Your task to perform on an android device: Set the phone to "Do not disturb". Image 0: 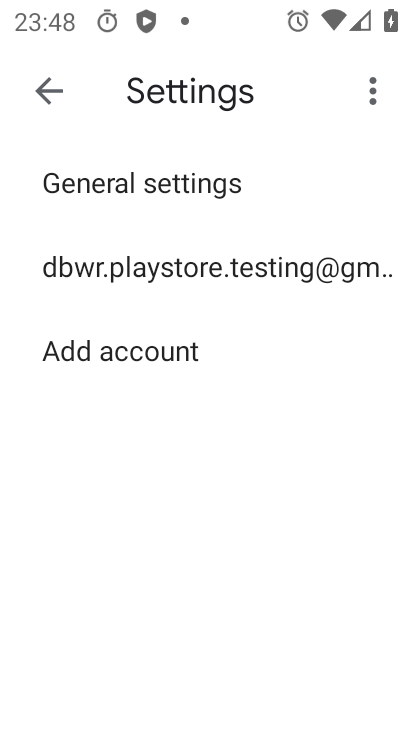
Step 0: click (38, 90)
Your task to perform on an android device: Set the phone to "Do not disturb". Image 1: 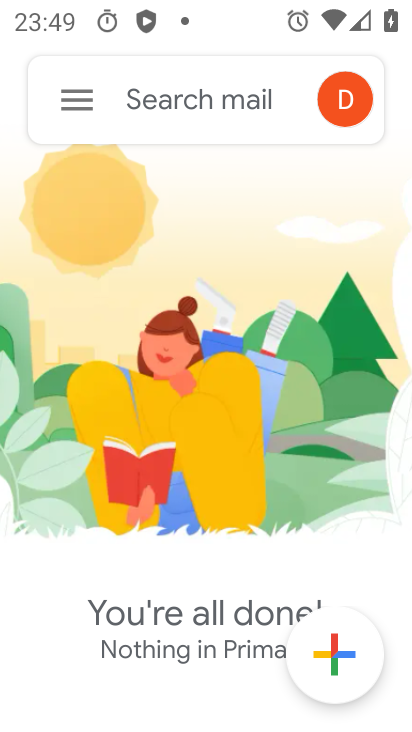
Step 1: press home button
Your task to perform on an android device: Set the phone to "Do not disturb". Image 2: 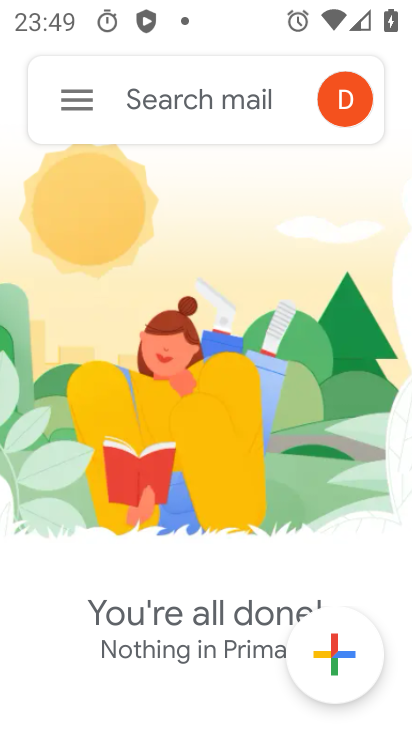
Step 2: press home button
Your task to perform on an android device: Set the phone to "Do not disturb". Image 3: 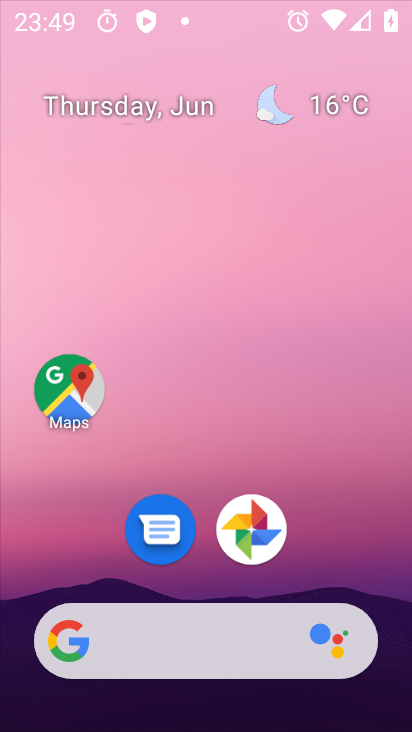
Step 3: press home button
Your task to perform on an android device: Set the phone to "Do not disturb". Image 4: 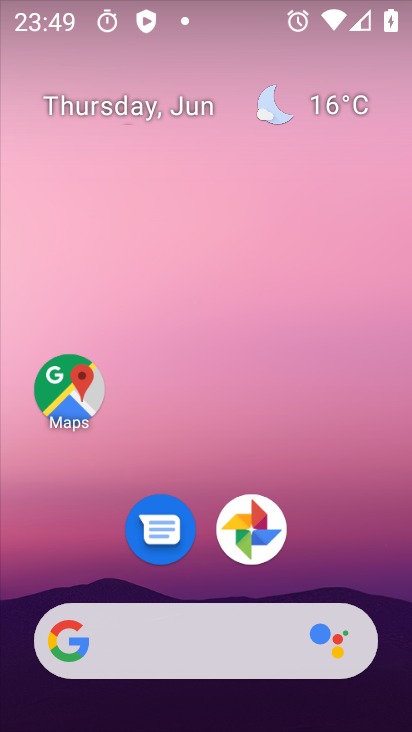
Step 4: drag from (190, 689) to (131, 284)
Your task to perform on an android device: Set the phone to "Do not disturb". Image 5: 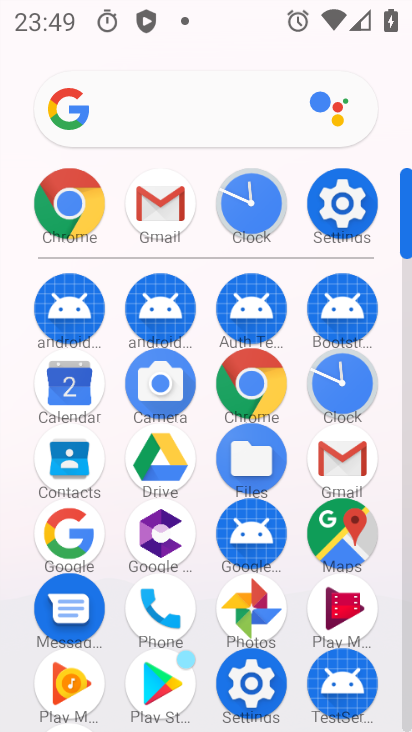
Step 5: click (318, 199)
Your task to perform on an android device: Set the phone to "Do not disturb". Image 6: 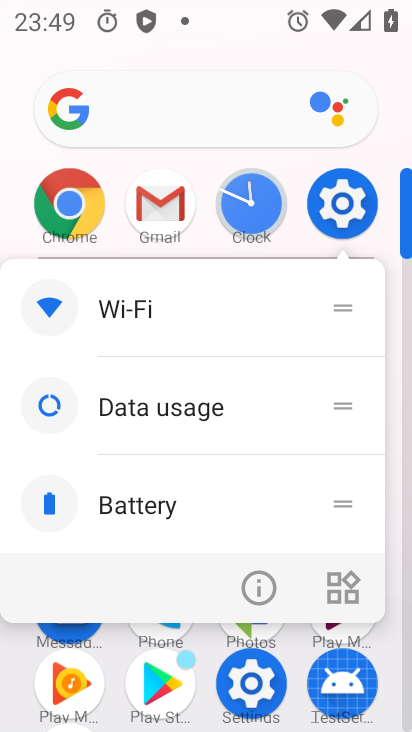
Step 6: click (341, 209)
Your task to perform on an android device: Set the phone to "Do not disturb". Image 7: 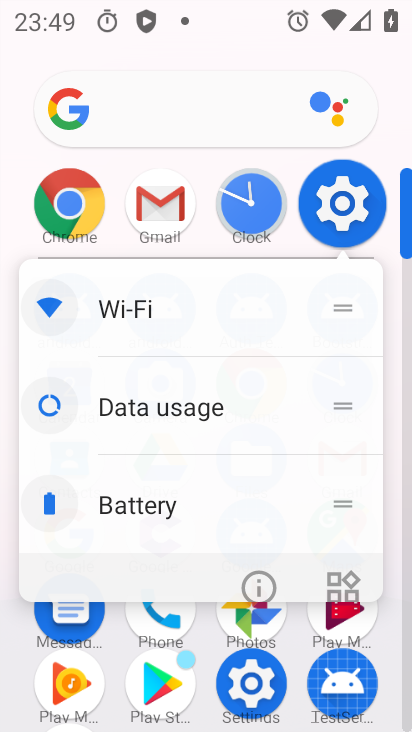
Step 7: click (341, 210)
Your task to perform on an android device: Set the phone to "Do not disturb". Image 8: 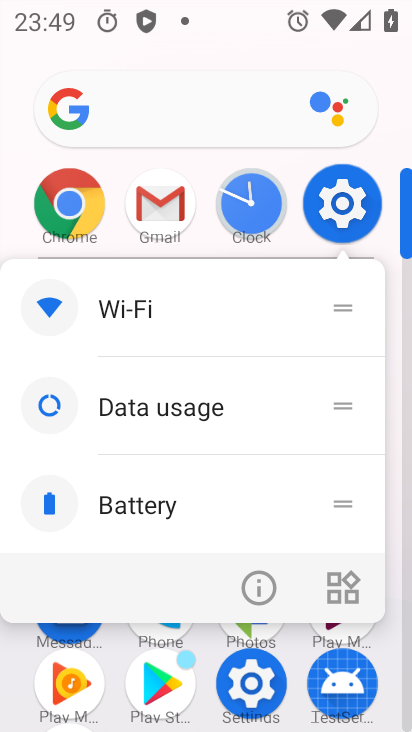
Step 8: click (341, 210)
Your task to perform on an android device: Set the phone to "Do not disturb". Image 9: 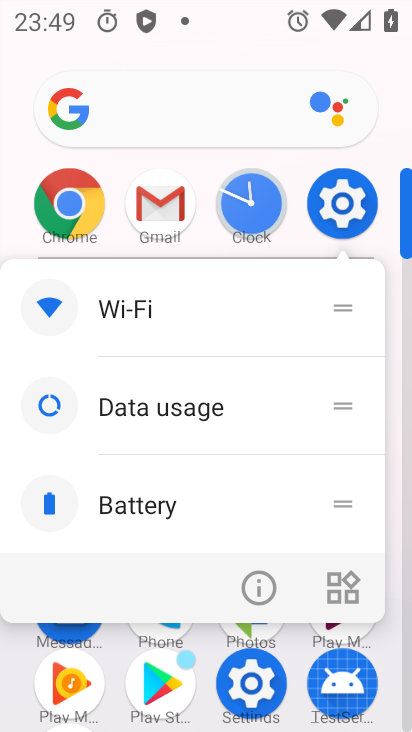
Step 9: click (335, 215)
Your task to perform on an android device: Set the phone to "Do not disturb". Image 10: 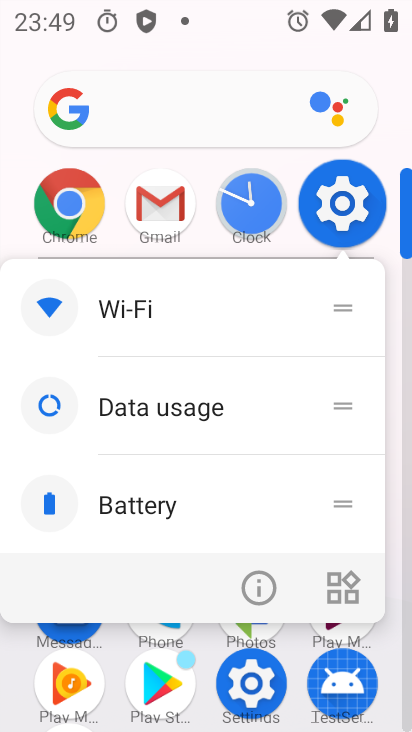
Step 10: click (336, 215)
Your task to perform on an android device: Set the phone to "Do not disturb". Image 11: 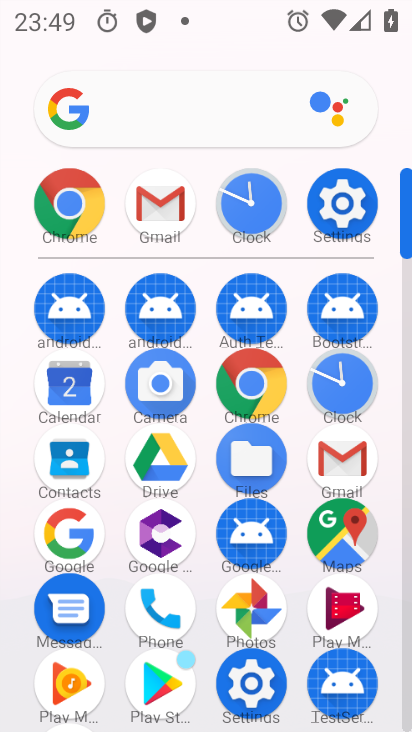
Step 11: click (345, 210)
Your task to perform on an android device: Set the phone to "Do not disturb". Image 12: 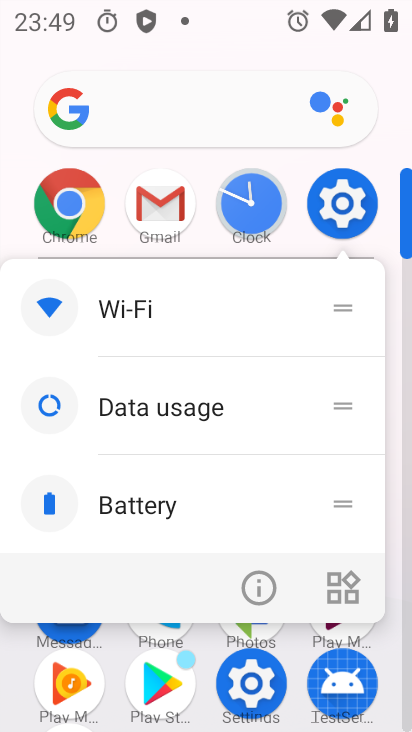
Step 12: click (331, 208)
Your task to perform on an android device: Set the phone to "Do not disturb". Image 13: 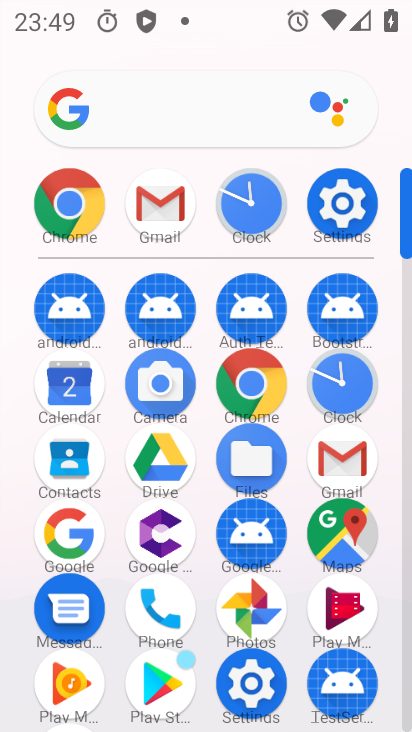
Step 13: click (346, 192)
Your task to perform on an android device: Set the phone to "Do not disturb". Image 14: 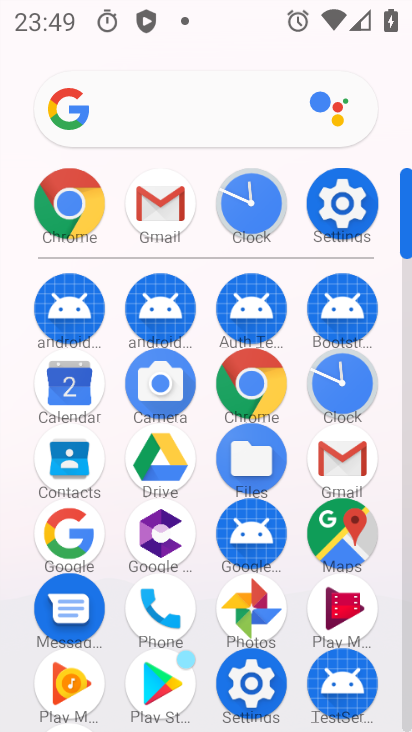
Step 14: click (346, 192)
Your task to perform on an android device: Set the phone to "Do not disturb". Image 15: 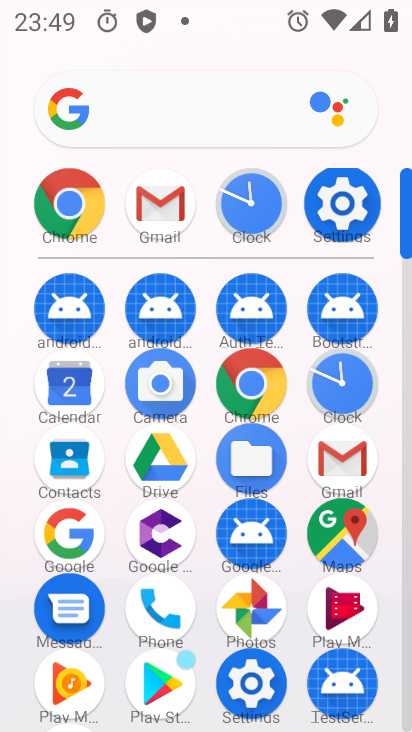
Step 15: click (343, 195)
Your task to perform on an android device: Set the phone to "Do not disturb". Image 16: 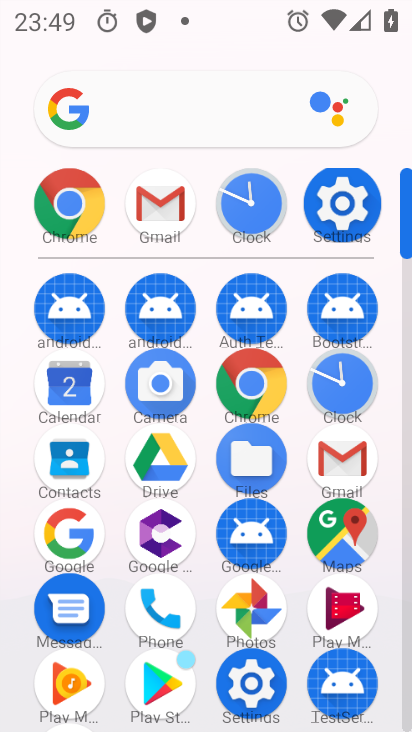
Step 16: click (343, 195)
Your task to perform on an android device: Set the phone to "Do not disturb". Image 17: 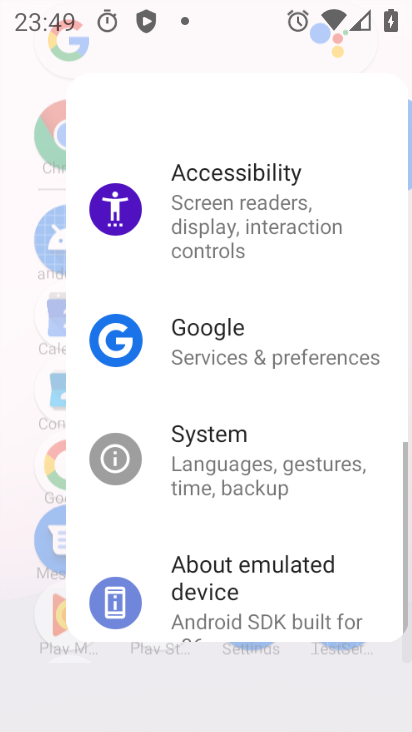
Step 17: click (343, 195)
Your task to perform on an android device: Set the phone to "Do not disturb". Image 18: 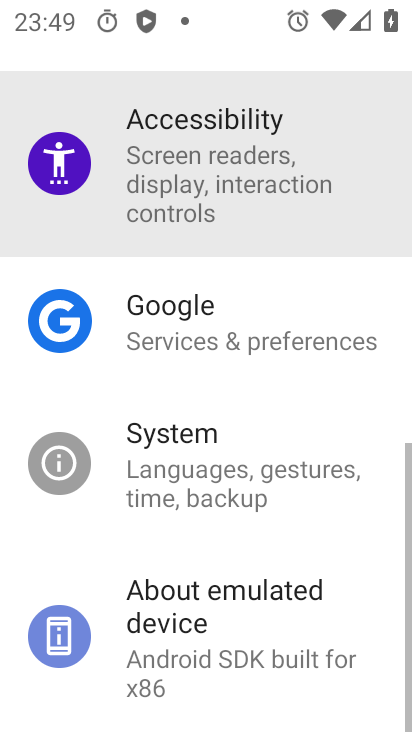
Step 18: click (346, 174)
Your task to perform on an android device: Set the phone to "Do not disturb". Image 19: 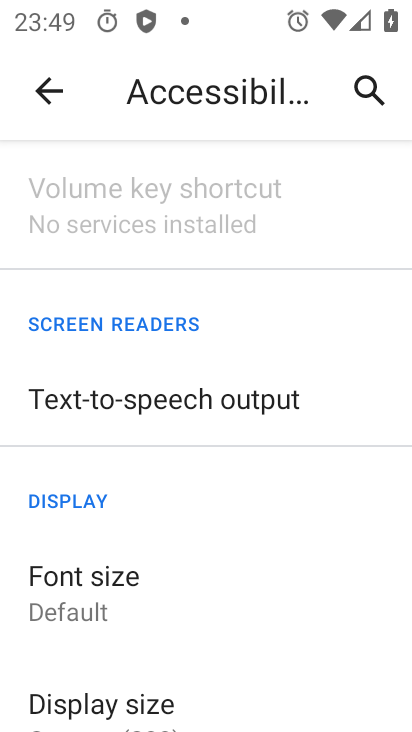
Step 19: click (28, 97)
Your task to perform on an android device: Set the phone to "Do not disturb". Image 20: 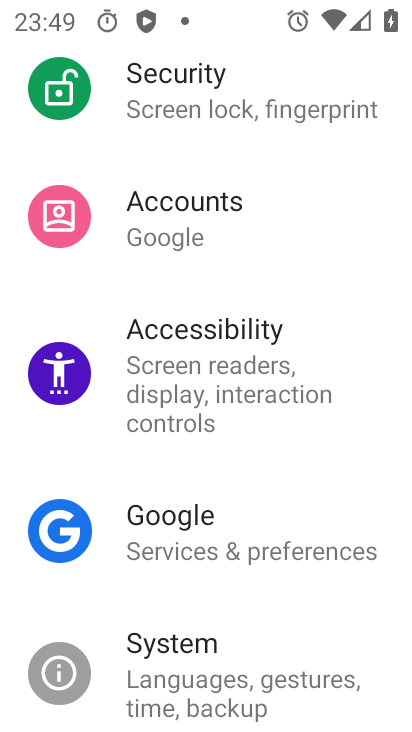
Step 20: drag from (182, 260) to (270, 632)
Your task to perform on an android device: Set the phone to "Do not disturb". Image 21: 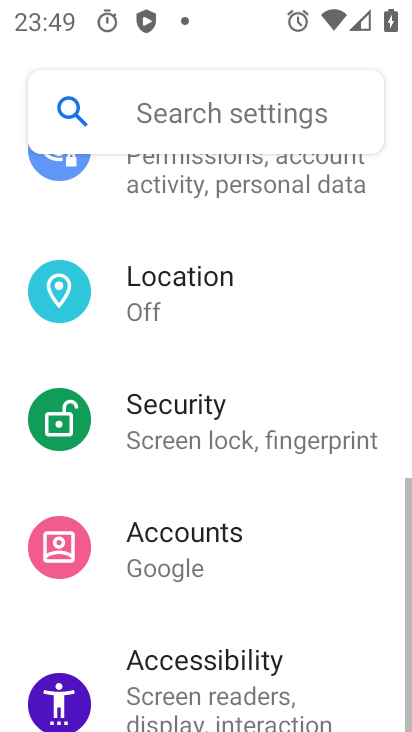
Step 21: drag from (202, 207) to (294, 585)
Your task to perform on an android device: Set the phone to "Do not disturb". Image 22: 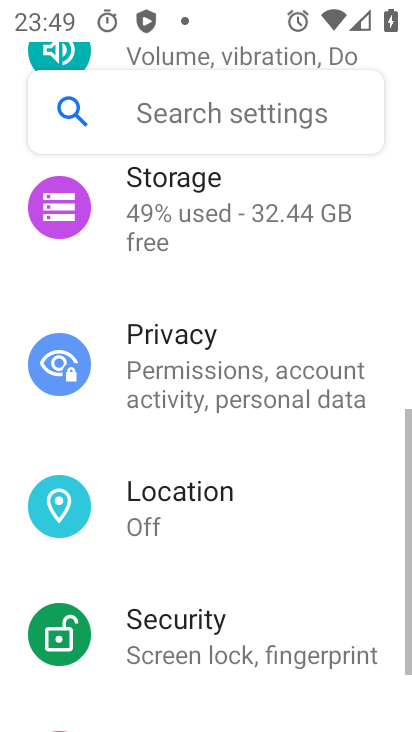
Step 22: drag from (271, 197) to (295, 640)
Your task to perform on an android device: Set the phone to "Do not disturb". Image 23: 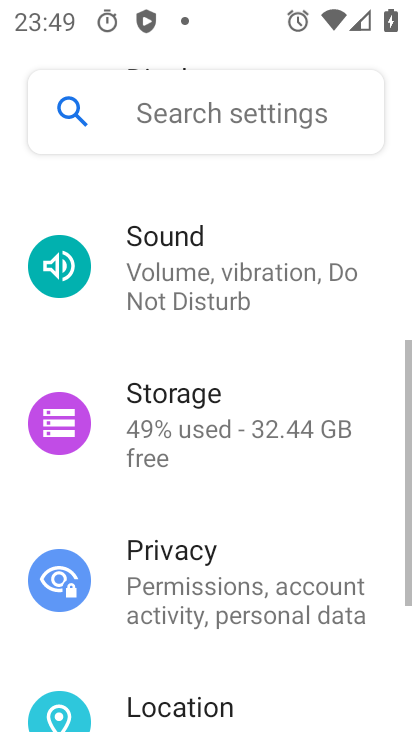
Step 23: drag from (252, 717) to (293, 675)
Your task to perform on an android device: Set the phone to "Do not disturb". Image 24: 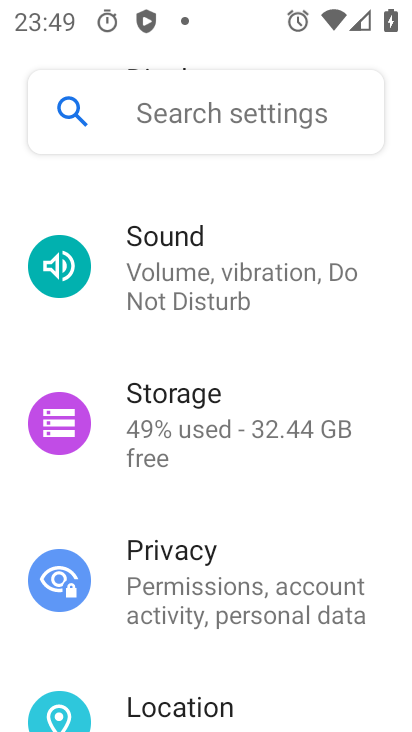
Step 24: click (175, 275)
Your task to perform on an android device: Set the phone to "Do not disturb". Image 25: 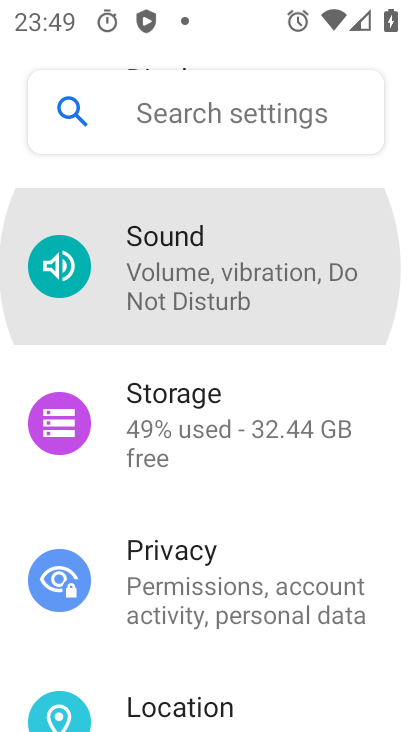
Step 25: click (175, 275)
Your task to perform on an android device: Set the phone to "Do not disturb". Image 26: 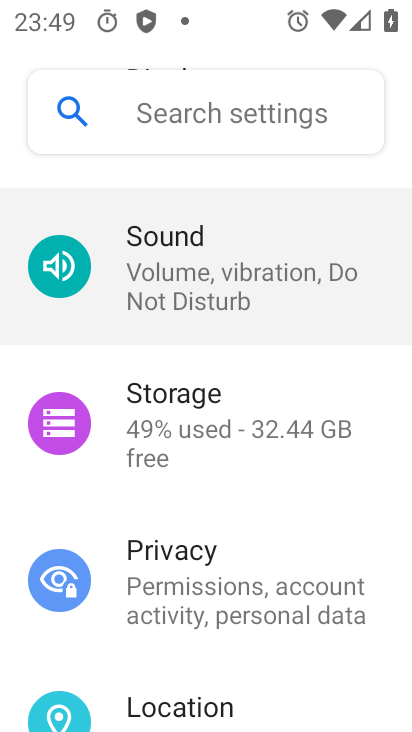
Step 26: click (176, 276)
Your task to perform on an android device: Set the phone to "Do not disturb". Image 27: 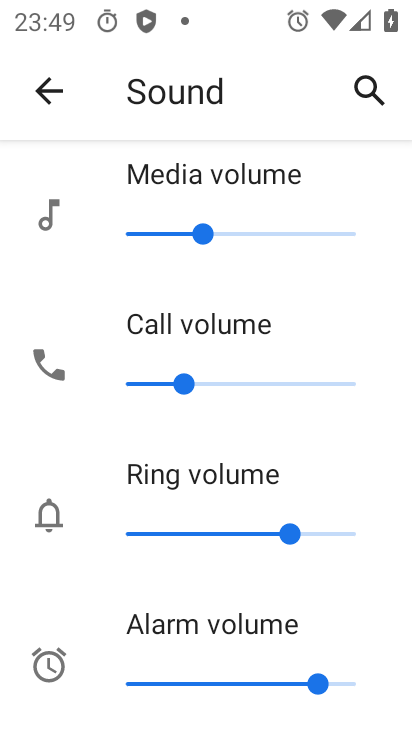
Step 27: drag from (199, 443) to (195, 169)
Your task to perform on an android device: Set the phone to "Do not disturb". Image 28: 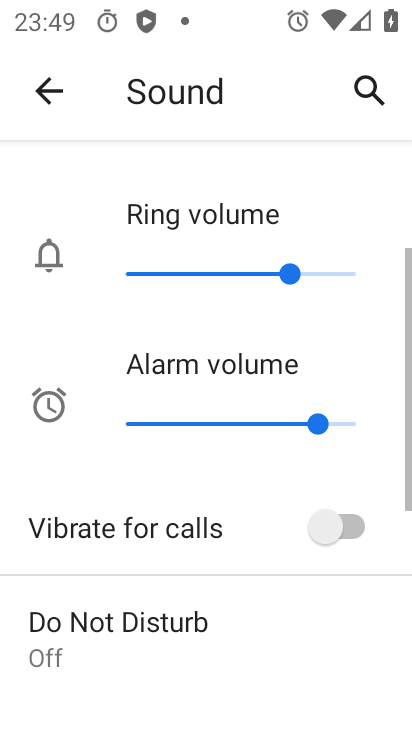
Step 28: drag from (206, 424) to (187, 316)
Your task to perform on an android device: Set the phone to "Do not disturb". Image 29: 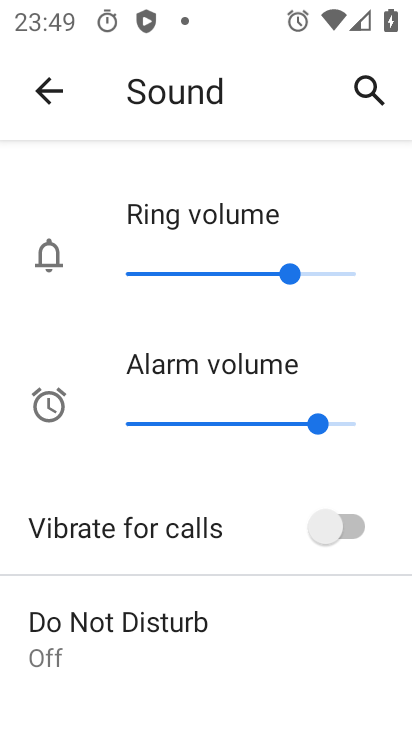
Step 29: drag from (127, 577) to (87, 167)
Your task to perform on an android device: Set the phone to "Do not disturb". Image 30: 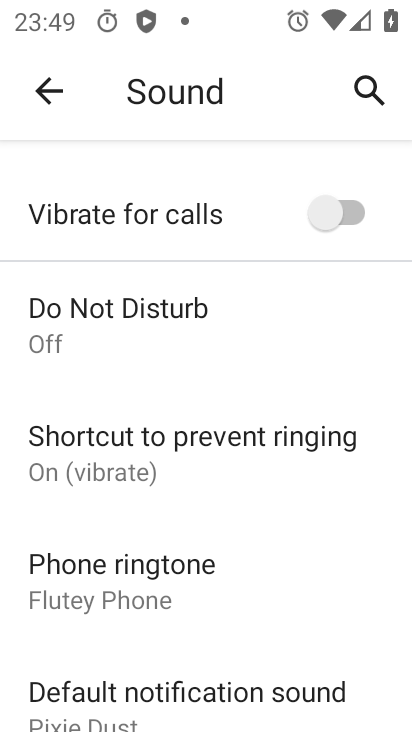
Step 30: click (118, 294)
Your task to perform on an android device: Set the phone to "Do not disturb". Image 31: 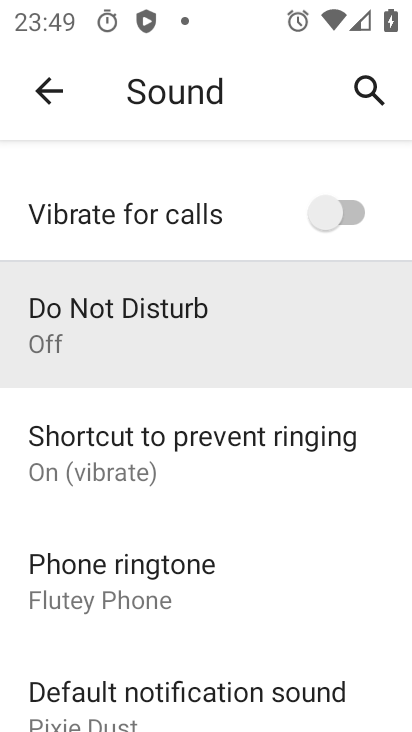
Step 31: click (118, 295)
Your task to perform on an android device: Set the phone to "Do not disturb". Image 32: 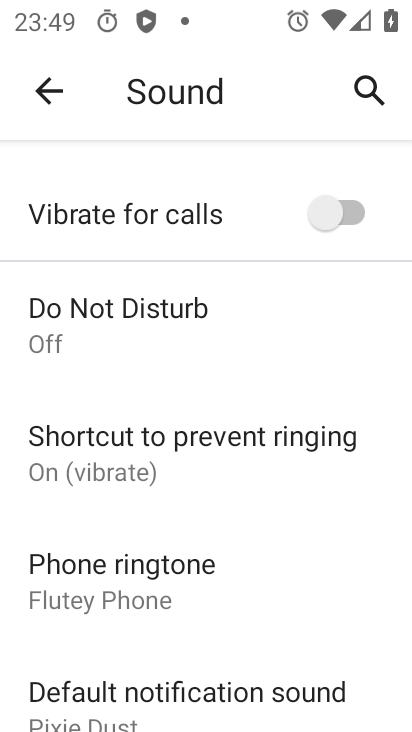
Step 32: click (118, 295)
Your task to perform on an android device: Set the phone to "Do not disturb". Image 33: 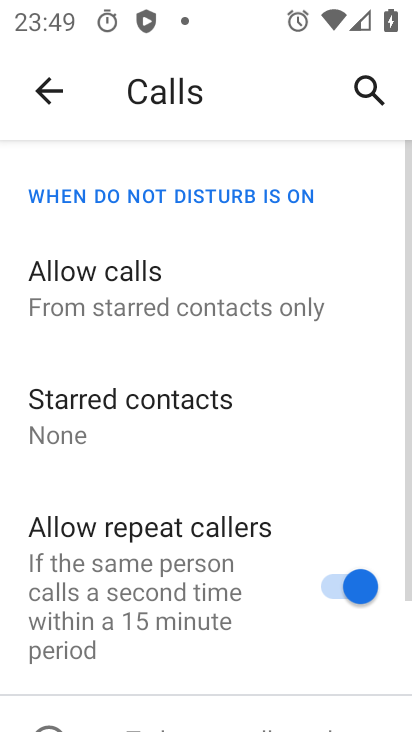
Step 33: drag from (249, 528) to (184, 185)
Your task to perform on an android device: Set the phone to "Do not disturb". Image 34: 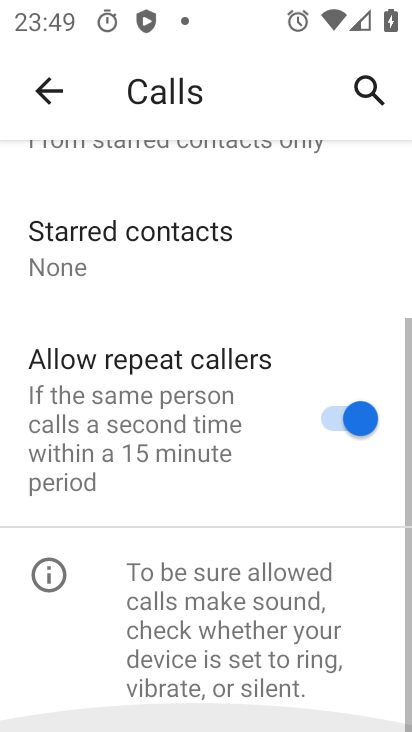
Step 34: drag from (242, 473) to (242, 76)
Your task to perform on an android device: Set the phone to "Do not disturb". Image 35: 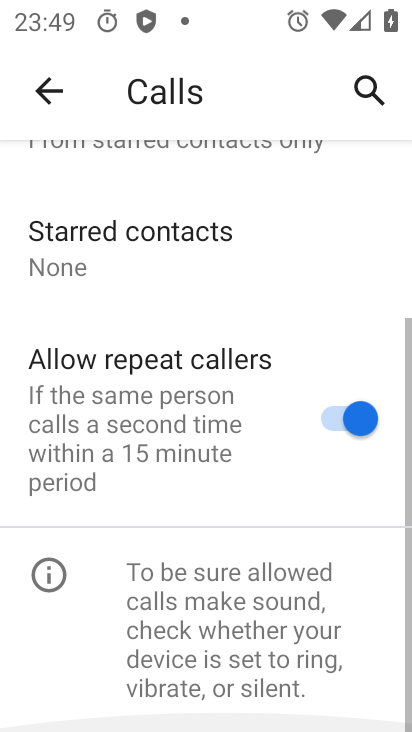
Step 35: drag from (255, 312) to (224, 78)
Your task to perform on an android device: Set the phone to "Do not disturb". Image 36: 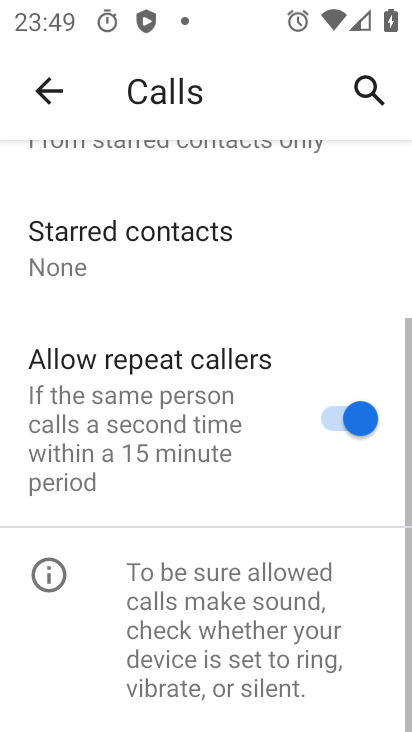
Step 36: click (46, 91)
Your task to perform on an android device: Set the phone to "Do not disturb". Image 37: 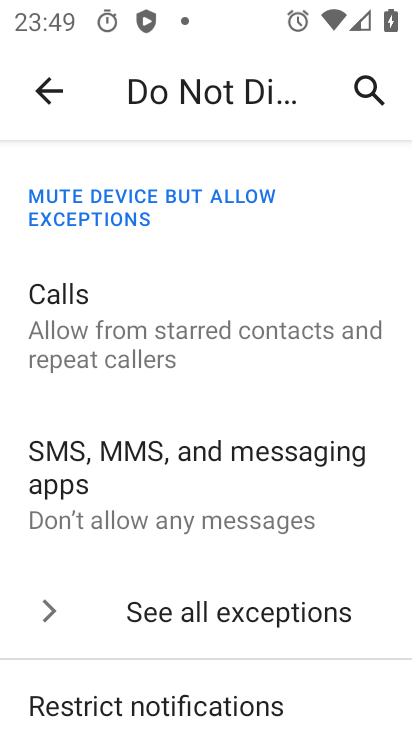
Step 37: task complete